Your task to perform on an android device: install app "Airtel Thanks" Image 0: 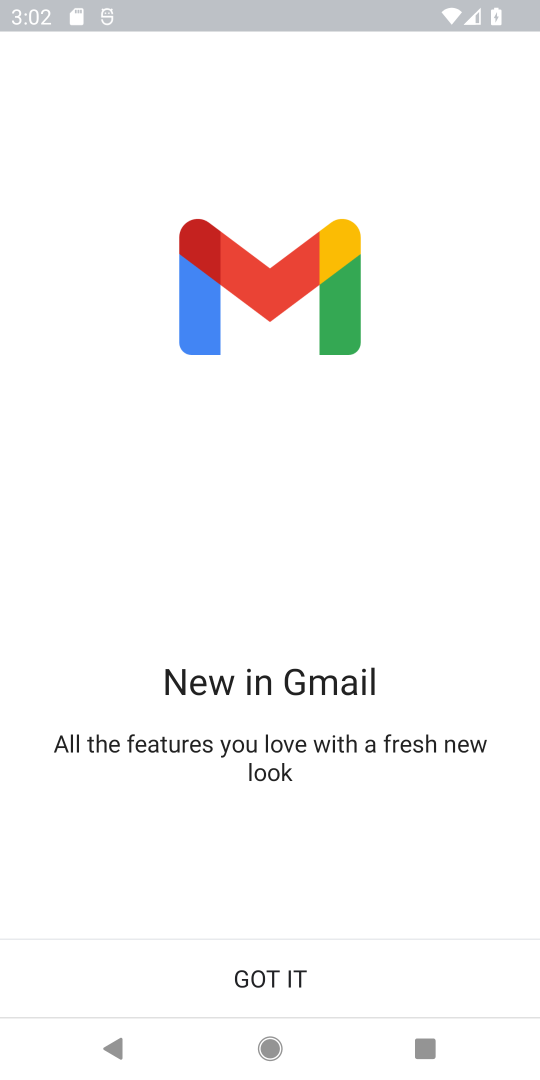
Step 0: press home button
Your task to perform on an android device: install app "Airtel Thanks" Image 1: 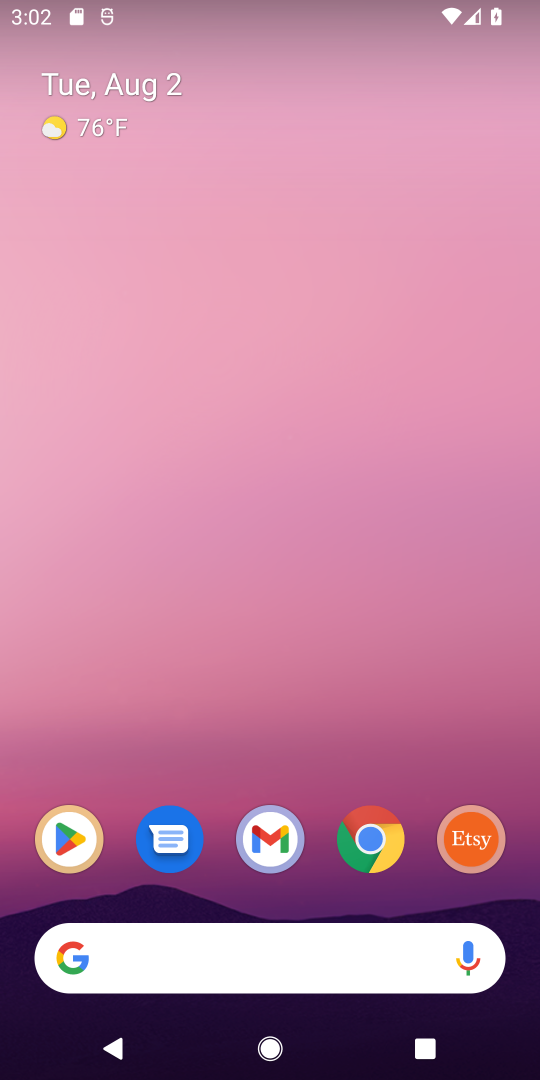
Step 1: click (93, 843)
Your task to perform on an android device: install app "Airtel Thanks" Image 2: 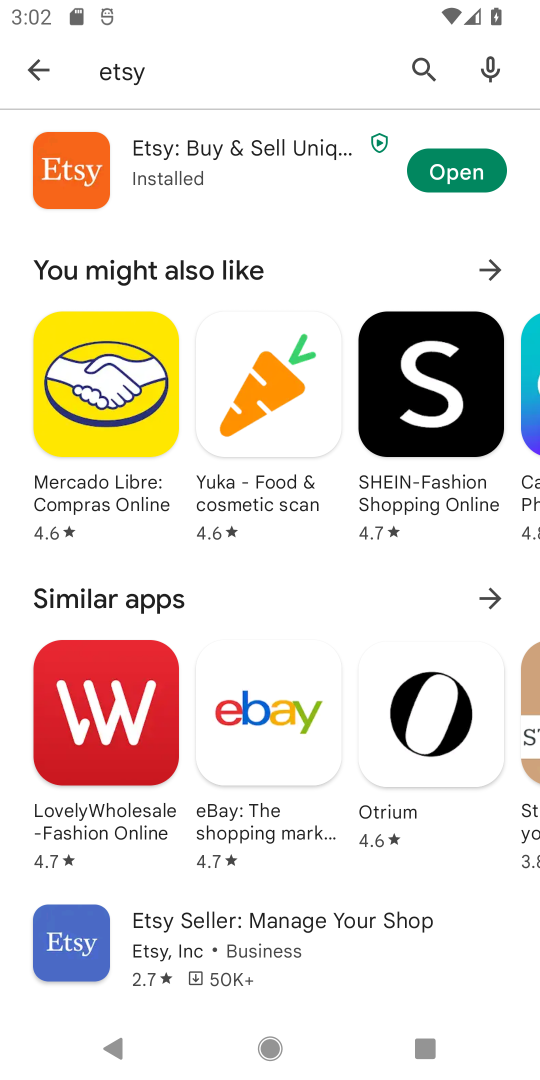
Step 2: click (413, 98)
Your task to perform on an android device: install app "Airtel Thanks" Image 3: 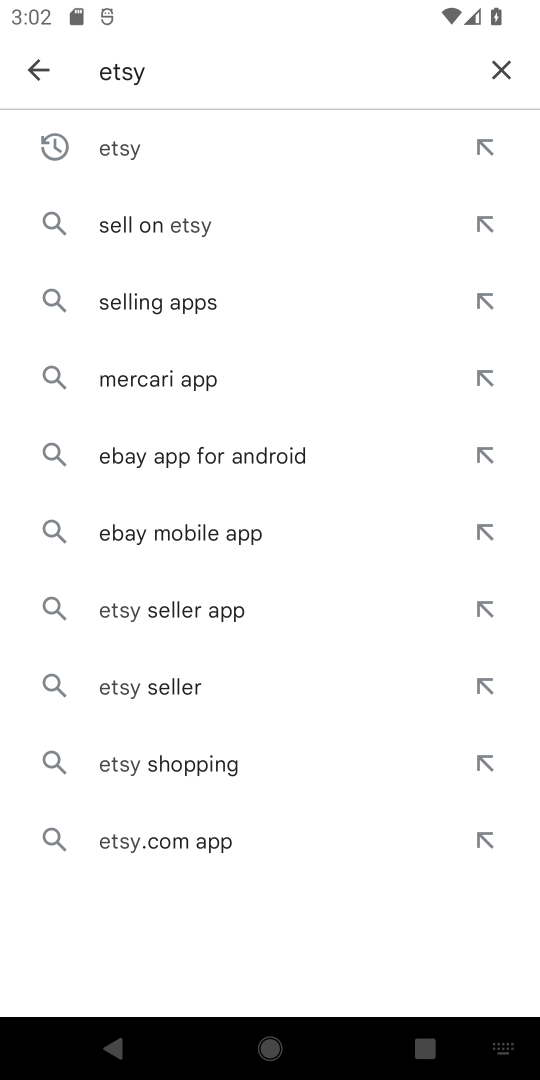
Step 3: click (518, 91)
Your task to perform on an android device: install app "Airtel Thanks" Image 4: 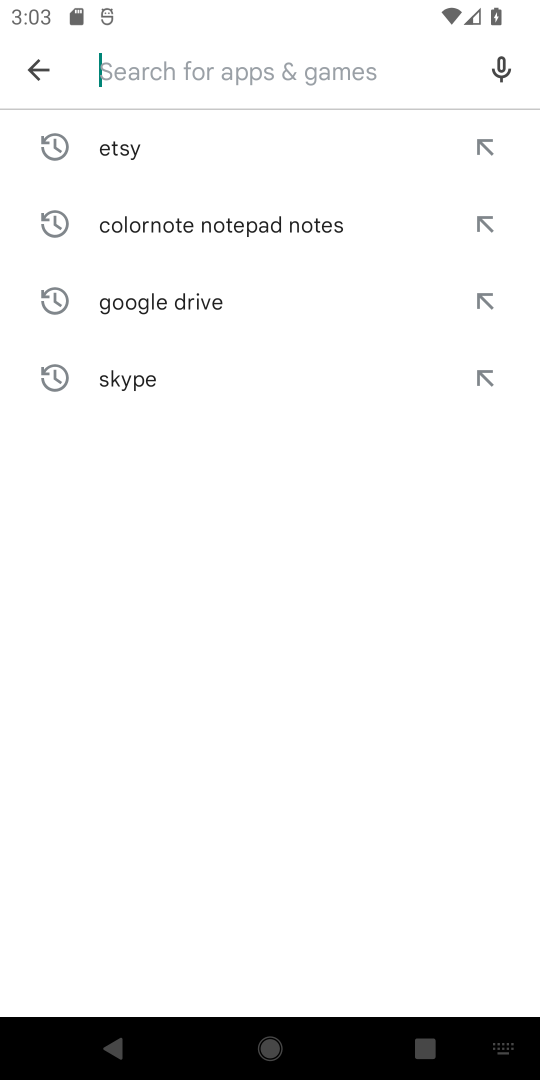
Step 4: type "airtel"
Your task to perform on an android device: install app "Airtel Thanks" Image 5: 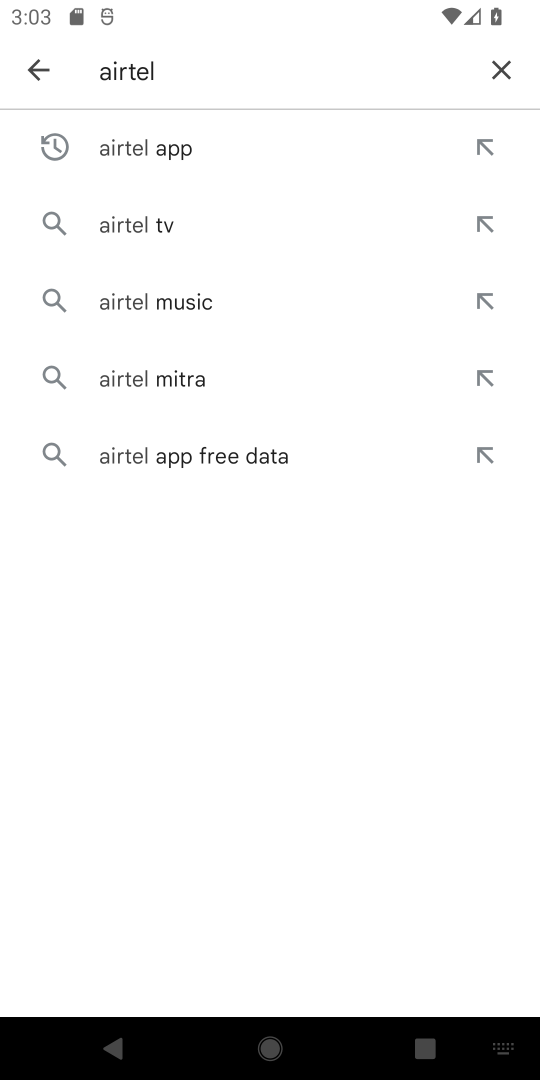
Step 5: click (300, 171)
Your task to perform on an android device: install app "Airtel Thanks" Image 6: 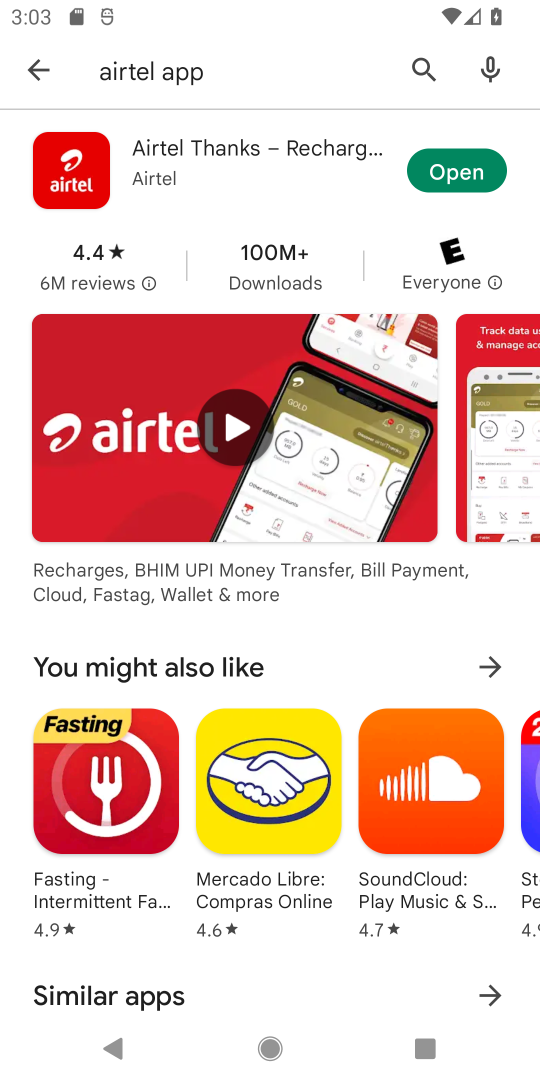
Step 6: click (429, 189)
Your task to perform on an android device: install app "Airtel Thanks" Image 7: 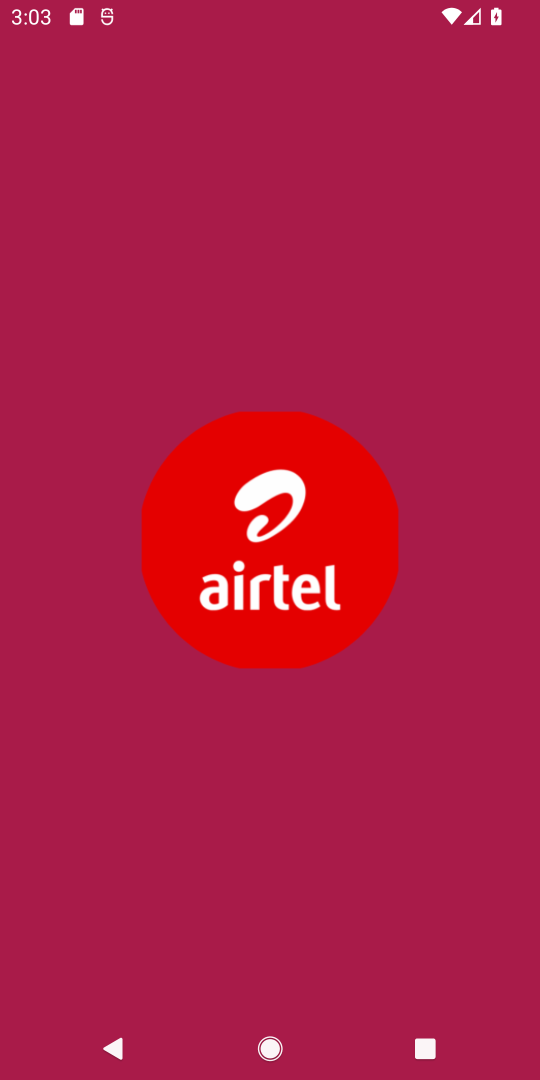
Step 7: task complete